Your task to perform on an android device: What's the weather going to be tomorrow? Image 0: 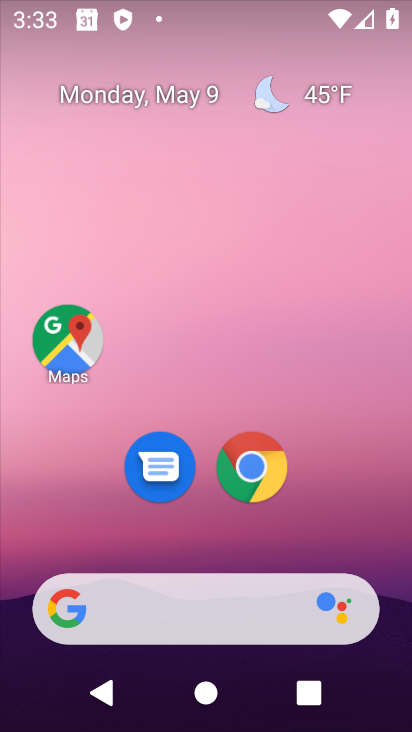
Step 0: drag from (333, 477) to (364, 152)
Your task to perform on an android device: What's the weather going to be tomorrow? Image 1: 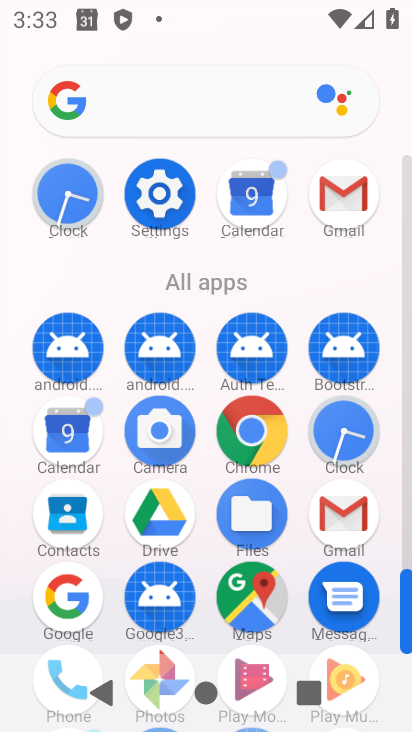
Step 1: click (272, 442)
Your task to perform on an android device: What's the weather going to be tomorrow? Image 2: 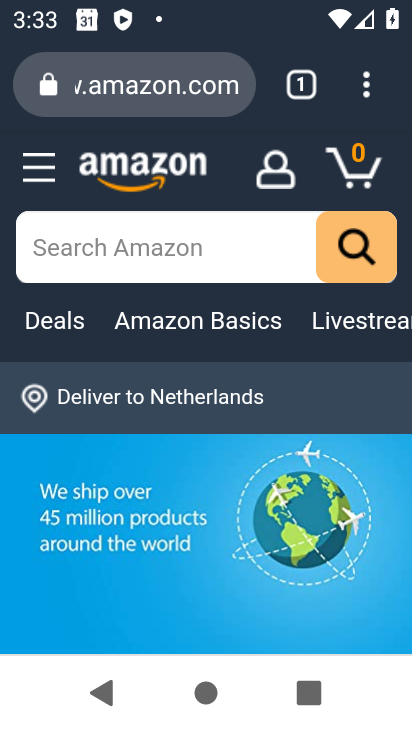
Step 2: click (187, 79)
Your task to perform on an android device: What's the weather going to be tomorrow? Image 3: 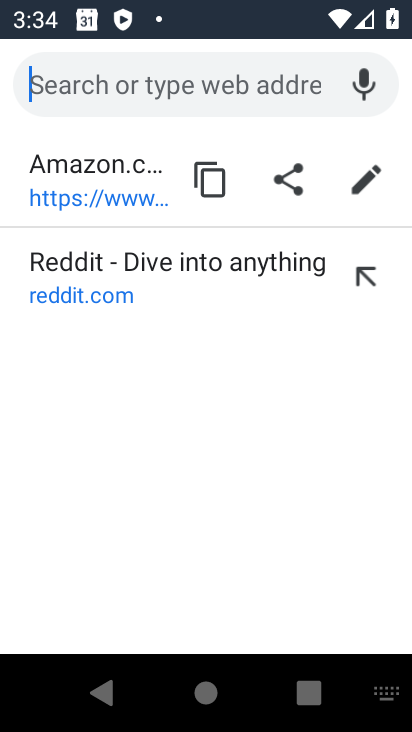
Step 3: type "whats the weather going to be tomorrow"
Your task to perform on an android device: What's the weather going to be tomorrow? Image 4: 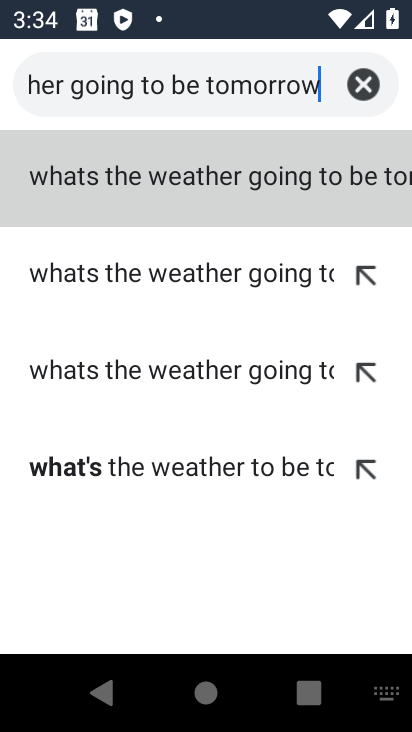
Step 4: click (221, 192)
Your task to perform on an android device: What's the weather going to be tomorrow? Image 5: 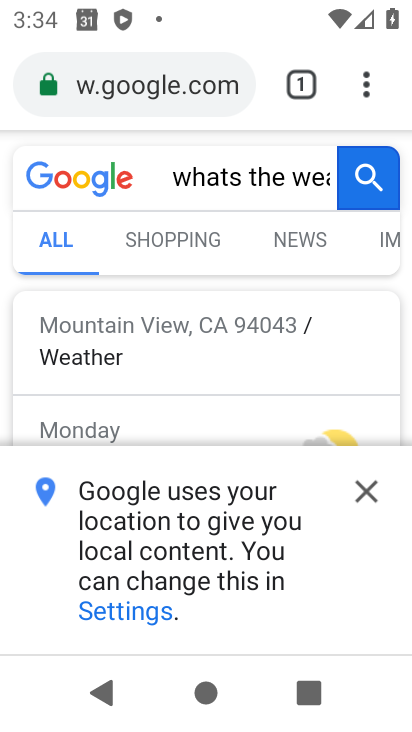
Step 5: click (373, 488)
Your task to perform on an android device: What's the weather going to be tomorrow? Image 6: 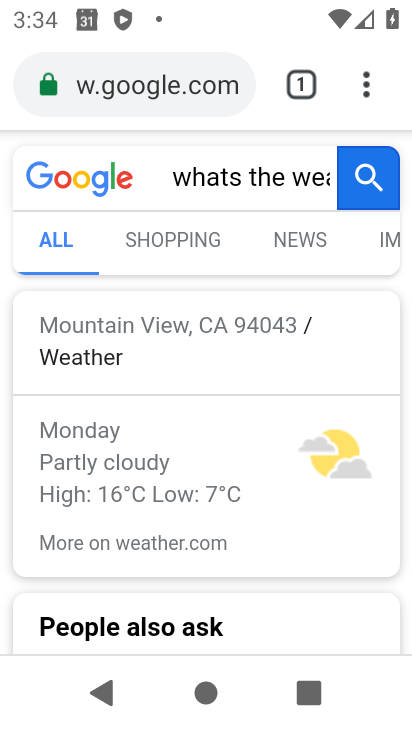
Step 6: task complete